Your task to perform on an android device: Show me recent news Image 0: 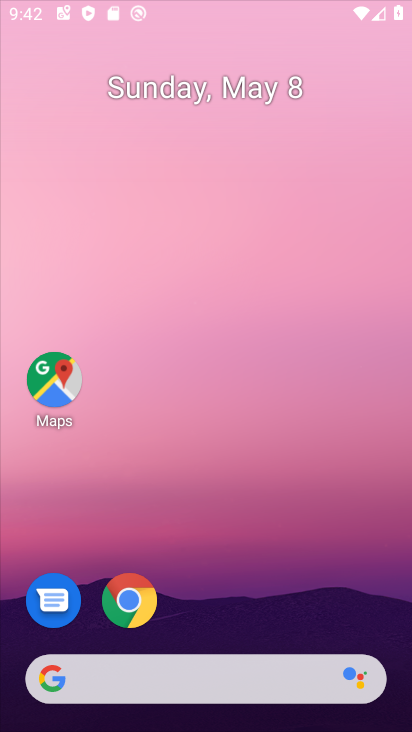
Step 0: click (319, 393)
Your task to perform on an android device: Show me recent news Image 1: 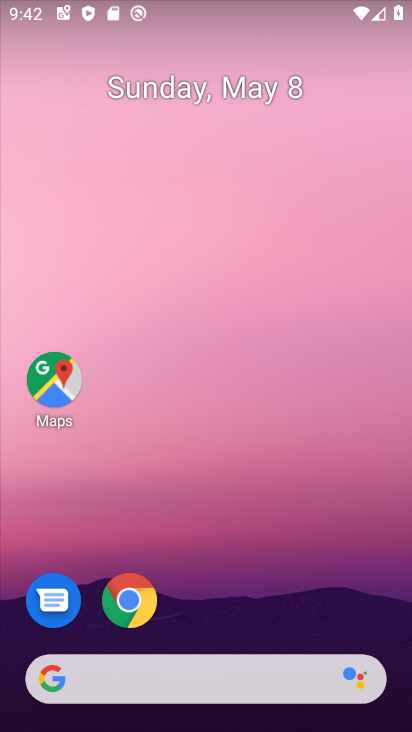
Step 1: task complete